Your task to perform on an android device: Play the last video I watched on Youtube Image 0: 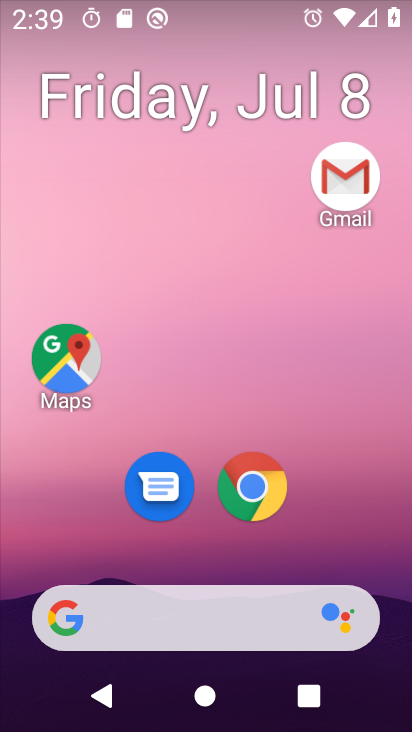
Step 0: drag from (375, 531) to (383, 107)
Your task to perform on an android device: Play the last video I watched on Youtube Image 1: 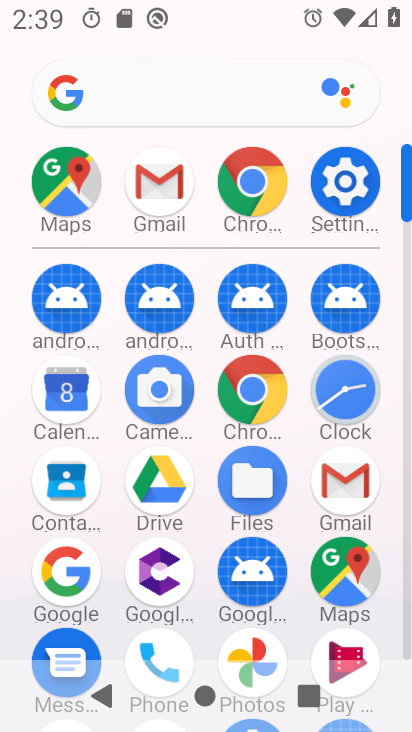
Step 1: drag from (291, 515) to (300, 263)
Your task to perform on an android device: Play the last video I watched on Youtube Image 2: 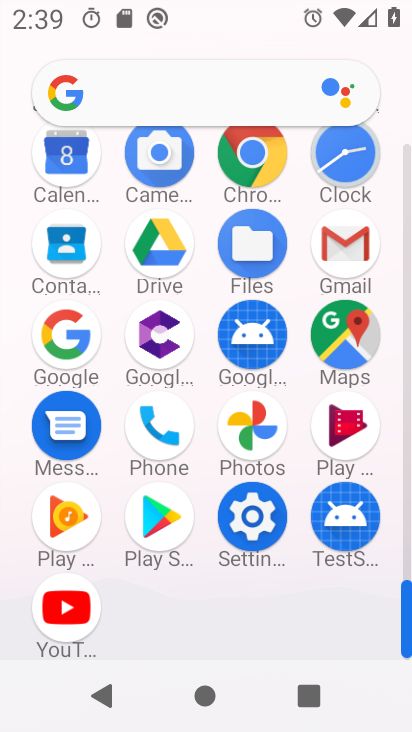
Step 2: click (79, 614)
Your task to perform on an android device: Play the last video I watched on Youtube Image 3: 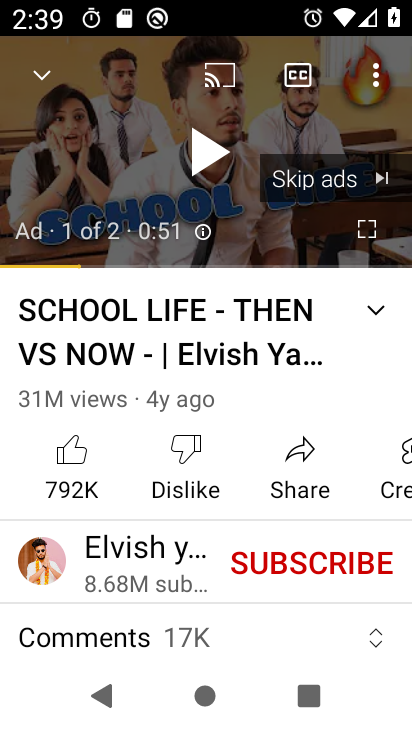
Step 3: click (205, 155)
Your task to perform on an android device: Play the last video I watched on Youtube Image 4: 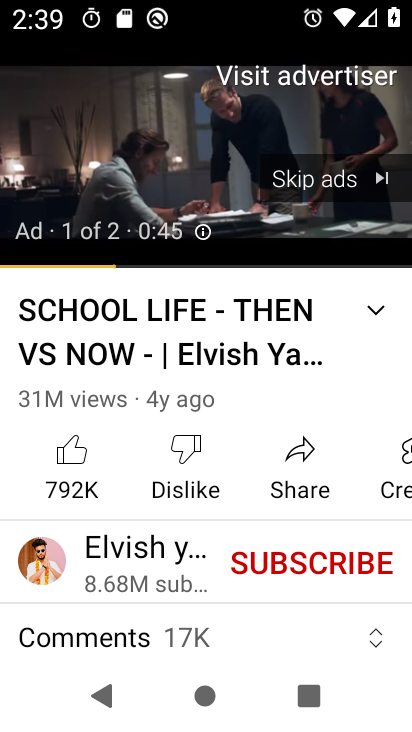
Step 4: task complete